Your task to perform on an android device: Open Google Maps Image 0: 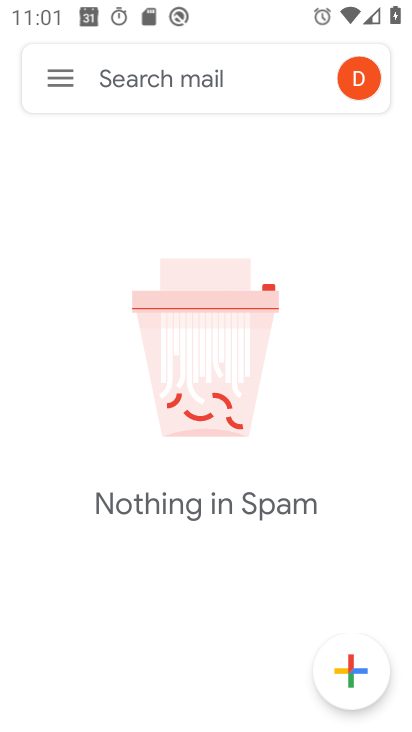
Step 0: press home button
Your task to perform on an android device: Open Google Maps Image 1: 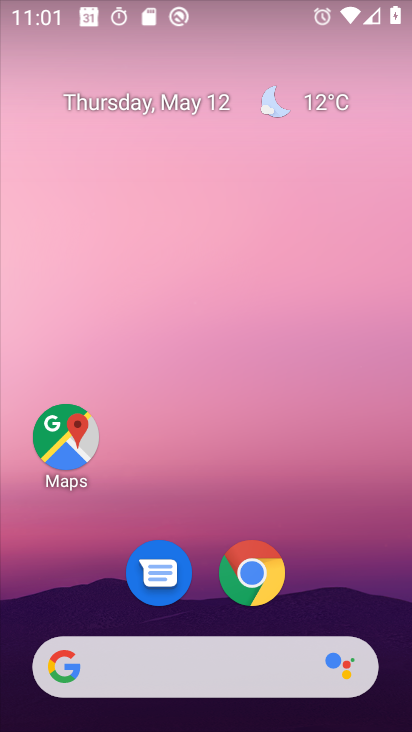
Step 1: click (72, 457)
Your task to perform on an android device: Open Google Maps Image 2: 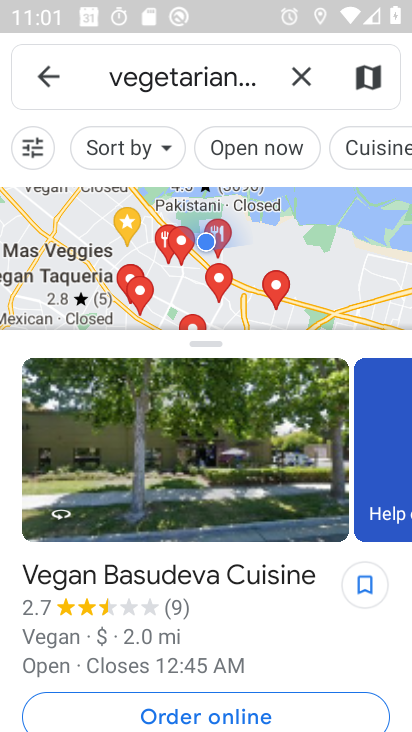
Step 2: task complete